Your task to perform on an android device: Go to Google Image 0: 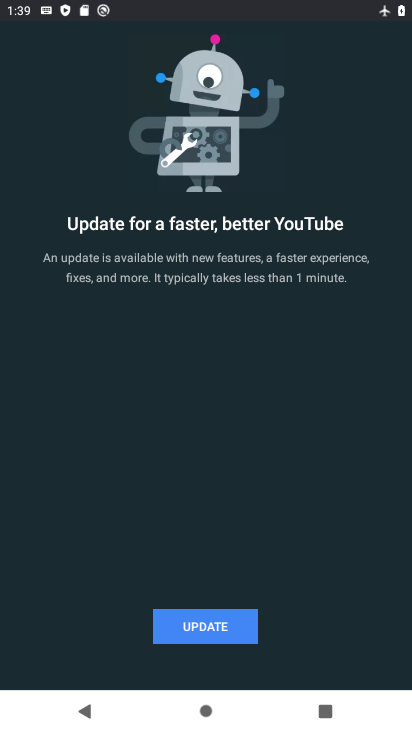
Step 0: press home button
Your task to perform on an android device: Go to Google Image 1: 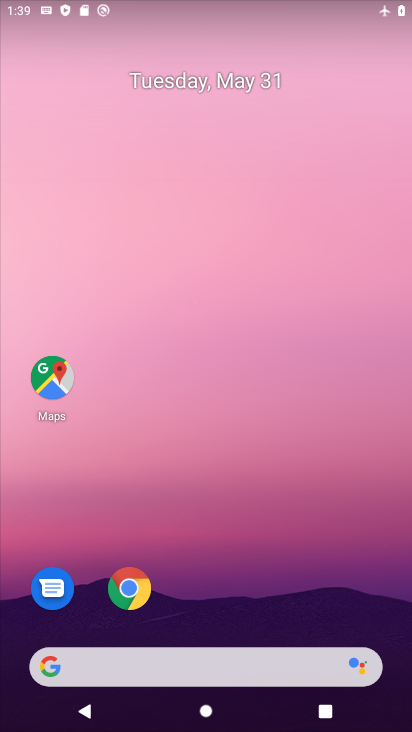
Step 1: drag from (240, 618) to (186, 217)
Your task to perform on an android device: Go to Google Image 2: 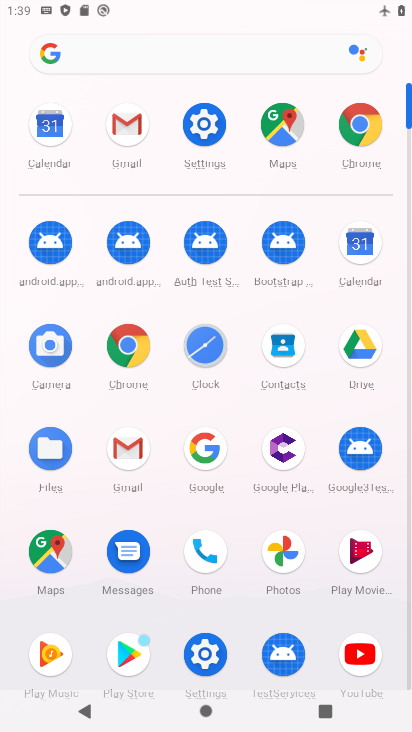
Step 2: click (200, 460)
Your task to perform on an android device: Go to Google Image 3: 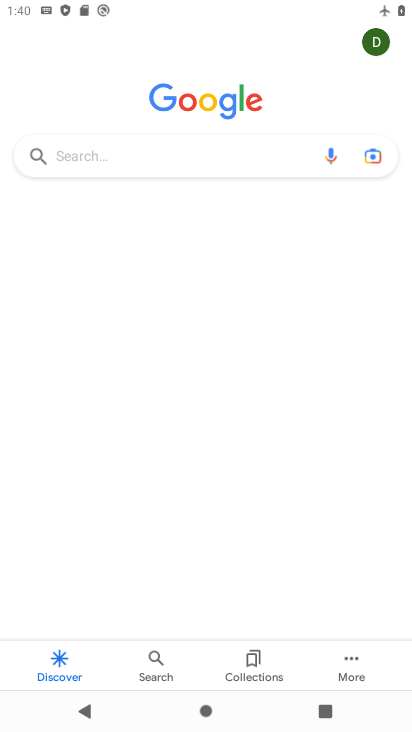
Step 3: task complete